Your task to perform on an android device: stop showing notifications on the lock screen Image 0: 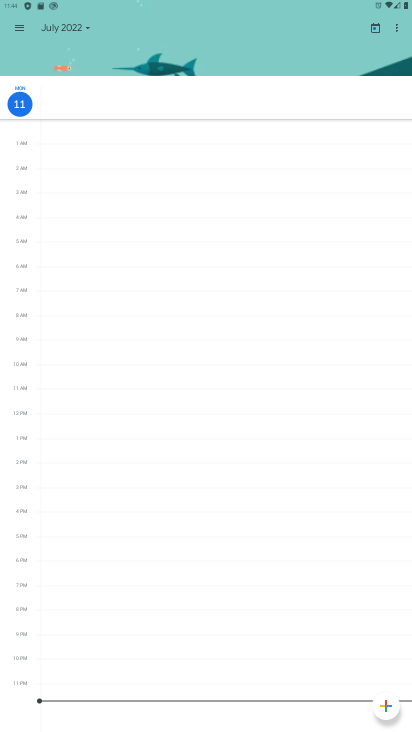
Step 0: press home button
Your task to perform on an android device: stop showing notifications on the lock screen Image 1: 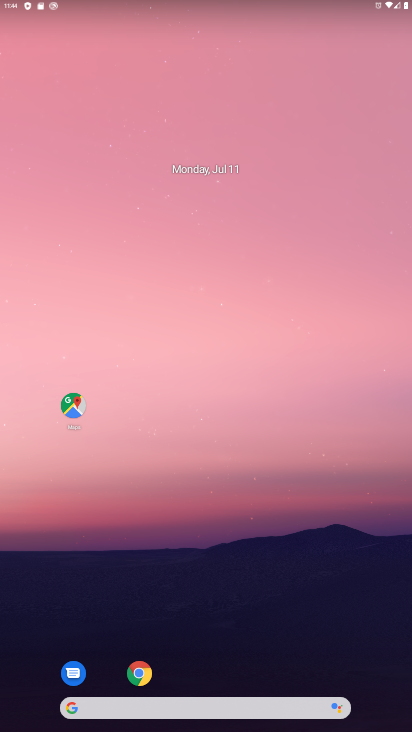
Step 1: drag from (216, 677) to (230, 105)
Your task to perform on an android device: stop showing notifications on the lock screen Image 2: 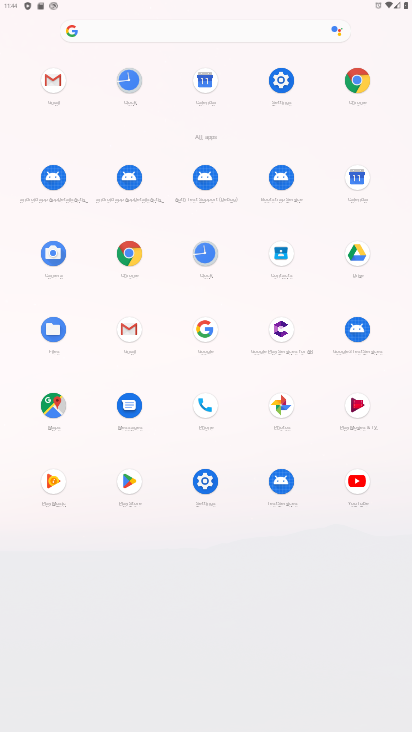
Step 2: click (277, 75)
Your task to perform on an android device: stop showing notifications on the lock screen Image 3: 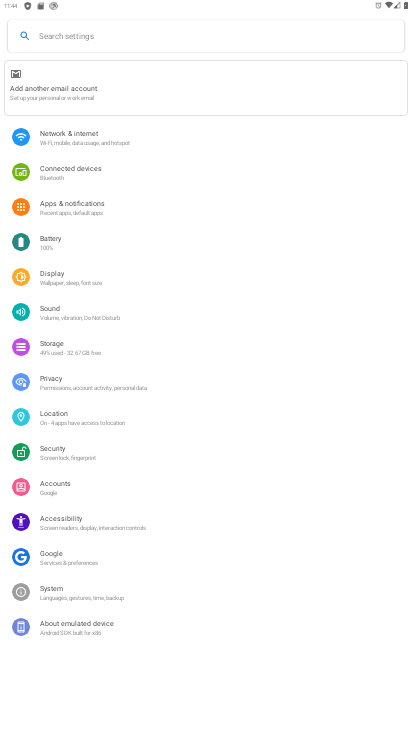
Step 3: click (97, 206)
Your task to perform on an android device: stop showing notifications on the lock screen Image 4: 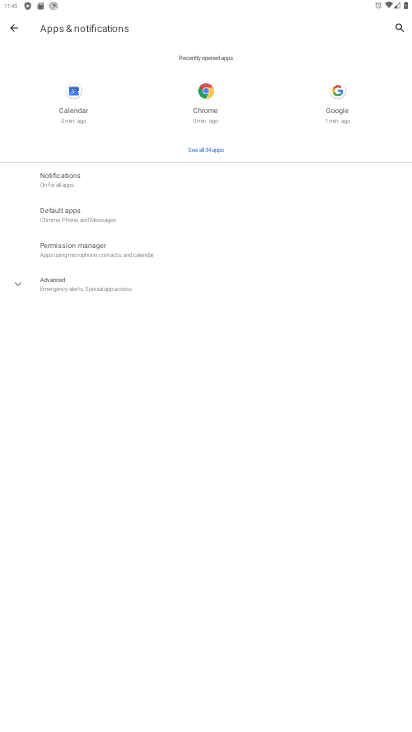
Step 4: click (79, 177)
Your task to perform on an android device: stop showing notifications on the lock screen Image 5: 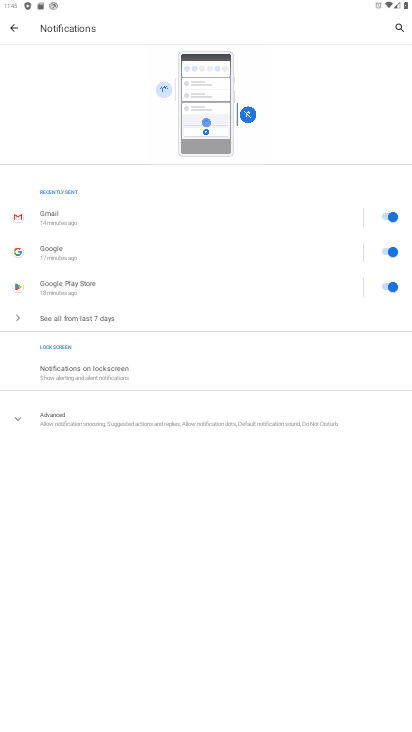
Step 5: click (83, 368)
Your task to perform on an android device: stop showing notifications on the lock screen Image 6: 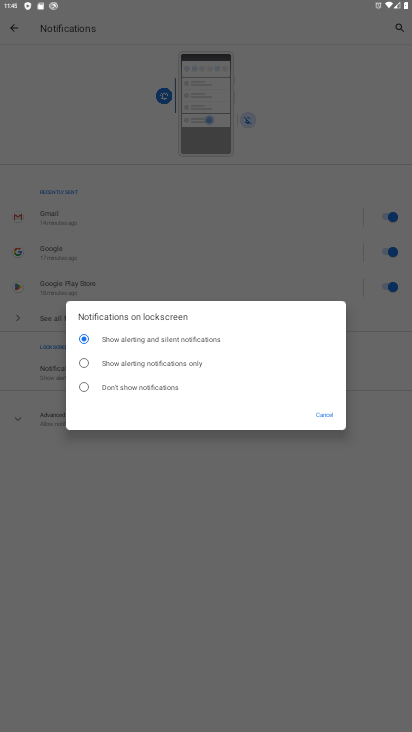
Step 6: click (81, 387)
Your task to perform on an android device: stop showing notifications on the lock screen Image 7: 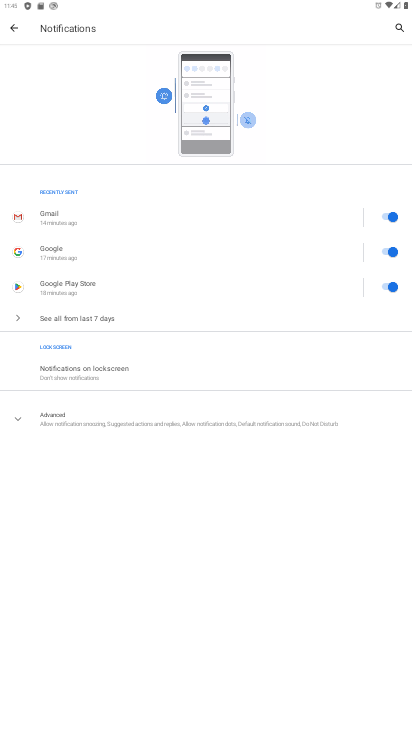
Step 7: task complete